Your task to perform on an android device: change the clock style Image 0: 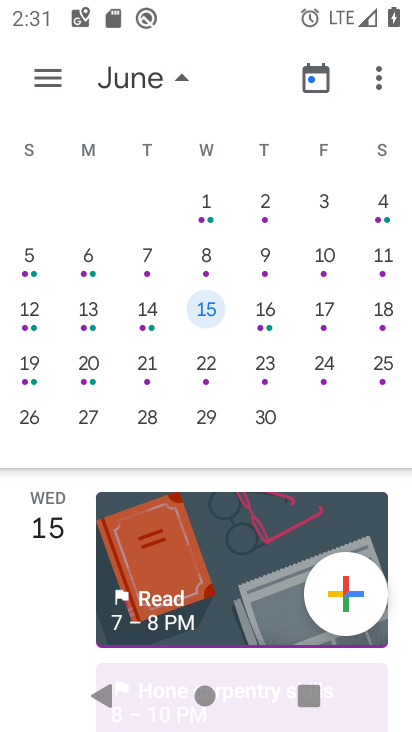
Step 0: press home button
Your task to perform on an android device: change the clock style Image 1: 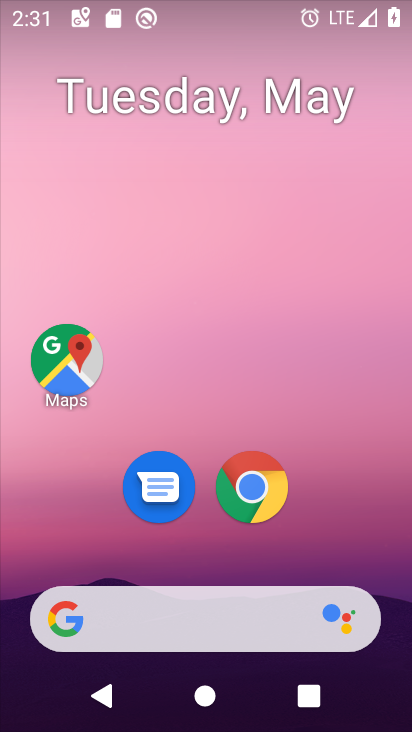
Step 1: drag from (55, 545) to (307, 178)
Your task to perform on an android device: change the clock style Image 2: 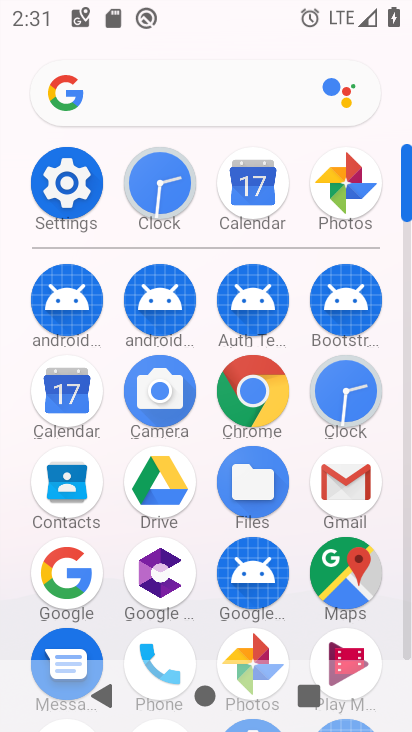
Step 2: click (340, 379)
Your task to perform on an android device: change the clock style Image 3: 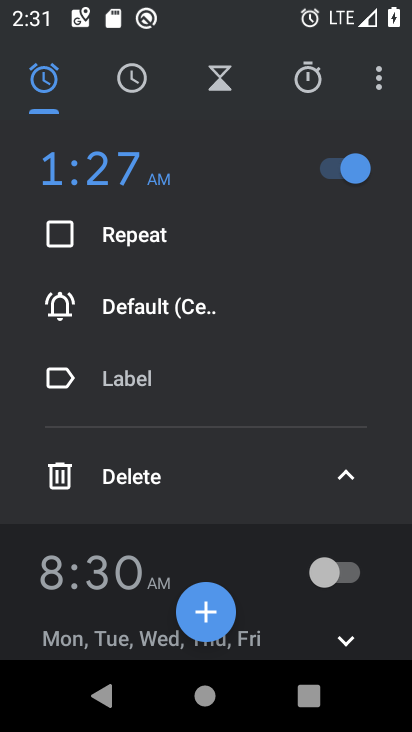
Step 3: click (377, 65)
Your task to perform on an android device: change the clock style Image 4: 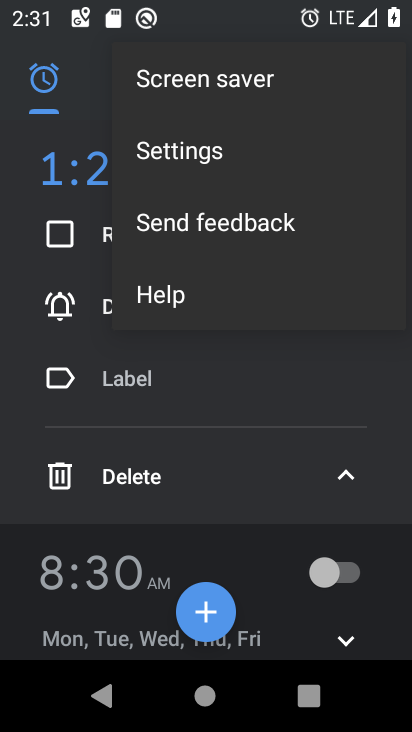
Step 4: click (158, 141)
Your task to perform on an android device: change the clock style Image 5: 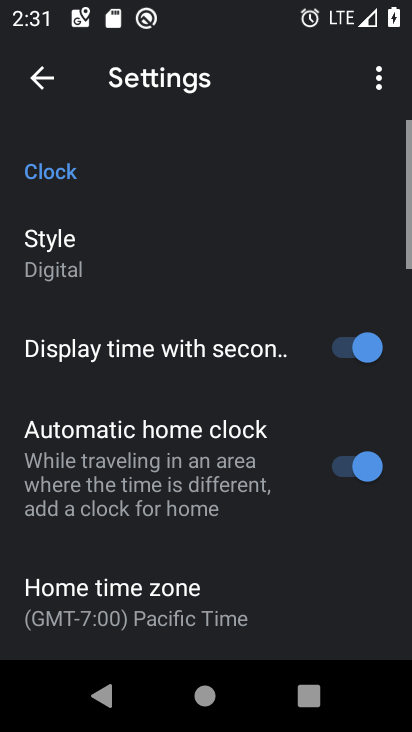
Step 5: click (75, 251)
Your task to perform on an android device: change the clock style Image 6: 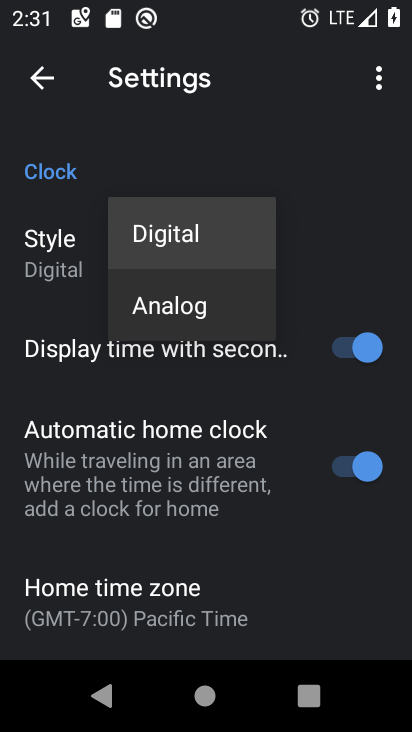
Step 6: click (174, 304)
Your task to perform on an android device: change the clock style Image 7: 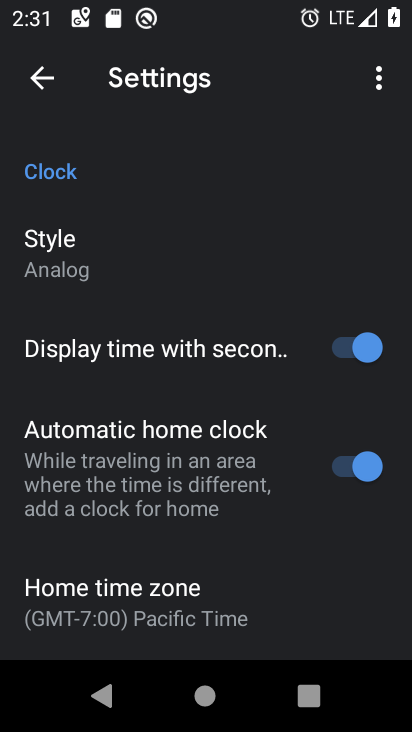
Step 7: task complete